Your task to perform on an android device: change notification settings in the gmail app Image 0: 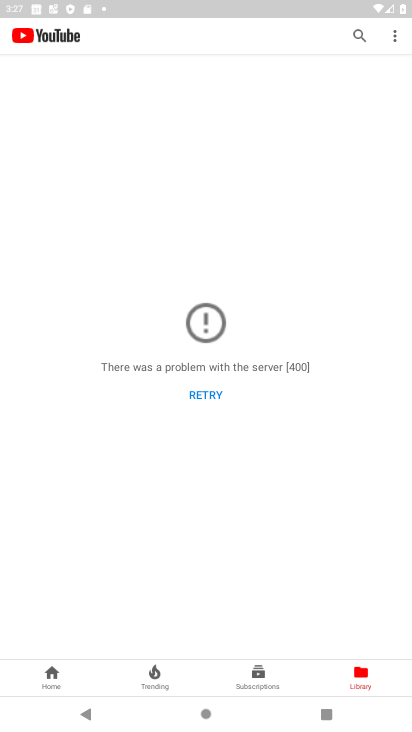
Step 0: press home button
Your task to perform on an android device: change notification settings in the gmail app Image 1: 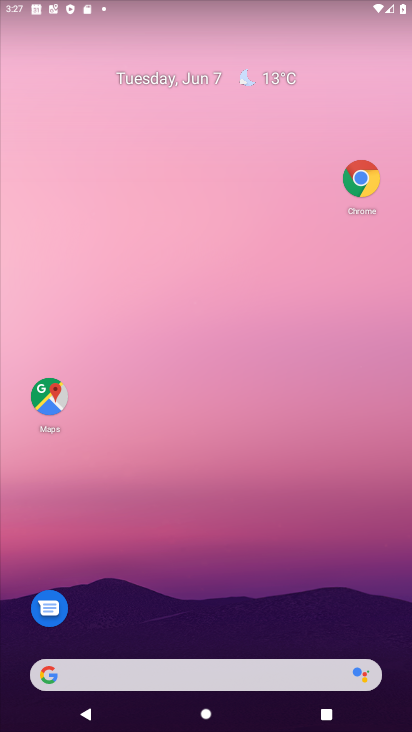
Step 1: drag from (148, 615) to (203, 69)
Your task to perform on an android device: change notification settings in the gmail app Image 2: 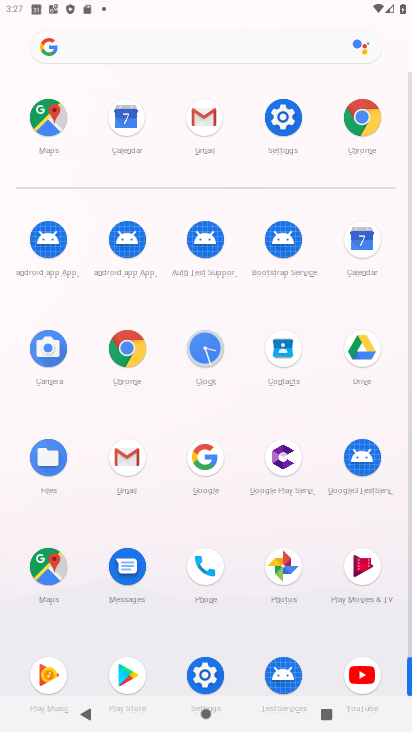
Step 2: click (114, 467)
Your task to perform on an android device: change notification settings in the gmail app Image 3: 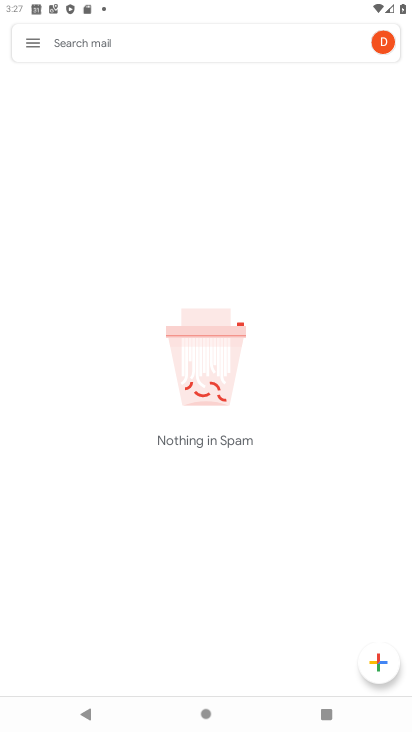
Step 3: click (35, 32)
Your task to perform on an android device: change notification settings in the gmail app Image 4: 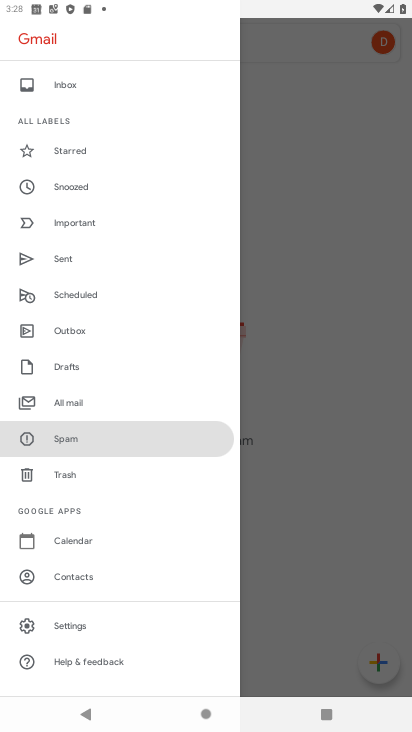
Step 4: drag from (81, 520) to (188, 15)
Your task to perform on an android device: change notification settings in the gmail app Image 5: 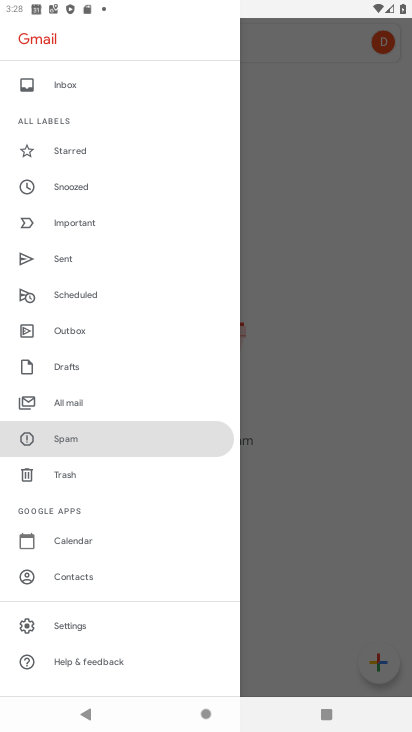
Step 5: click (113, 626)
Your task to perform on an android device: change notification settings in the gmail app Image 6: 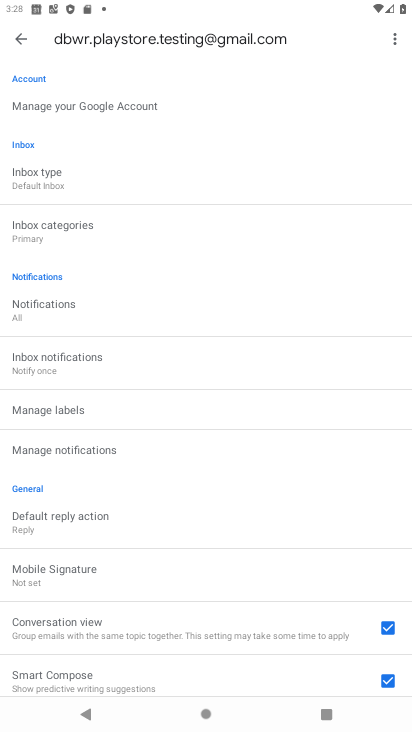
Step 6: click (100, 464)
Your task to perform on an android device: change notification settings in the gmail app Image 7: 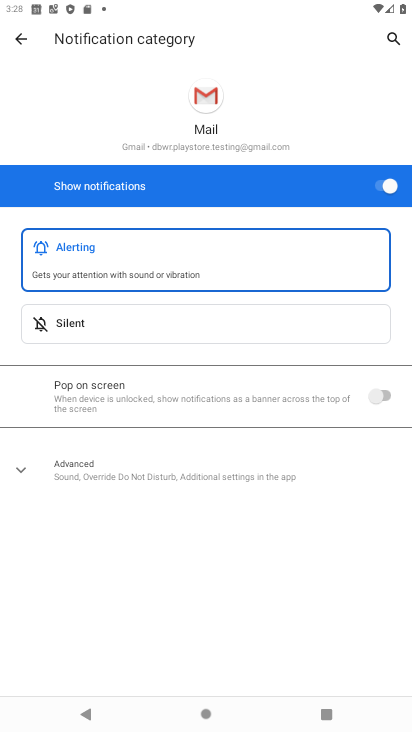
Step 7: click (188, 332)
Your task to perform on an android device: change notification settings in the gmail app Image 8: 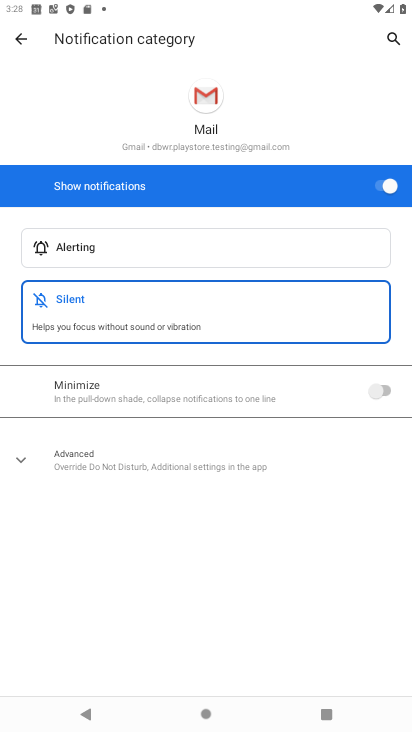
Step 8: click (385, 389)
Your task to perform on an android device: change notification settings in the gmail app Image 9: 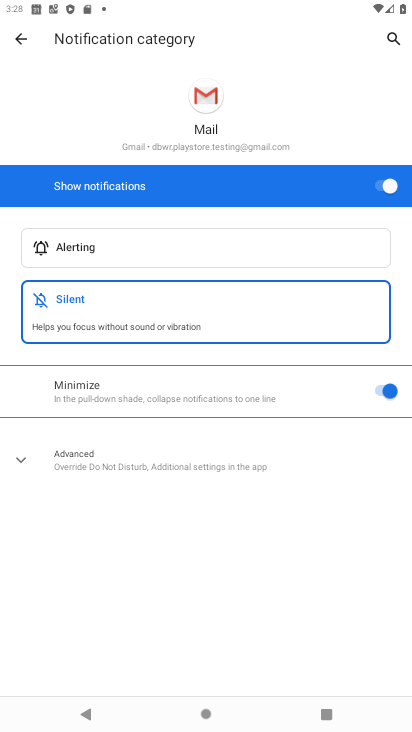
Step 9: click (341, 434)
Your task to perform on an android device: change notification settings in the gmail app Image 10: 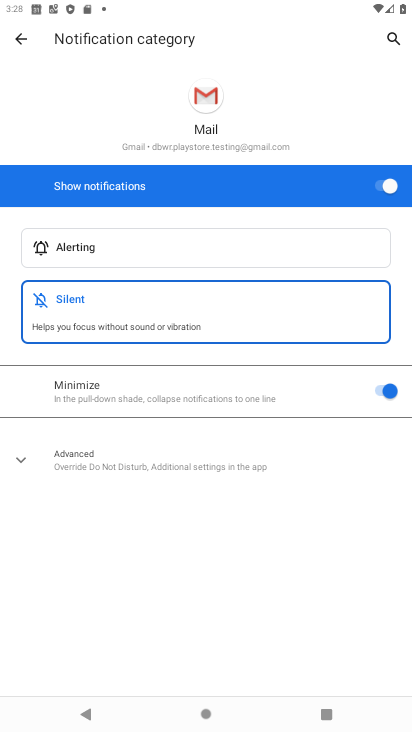
Step 10: click (191, 476)
Your task to perform on an android device: change notification settings in the gmail app Image 11: 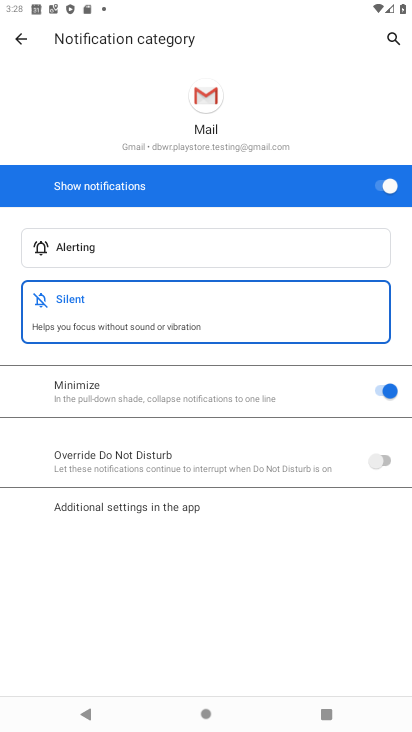
Step 11: click (386, 455)
Your task to perform on an android device: change notification settings in the gmail app Image 12: 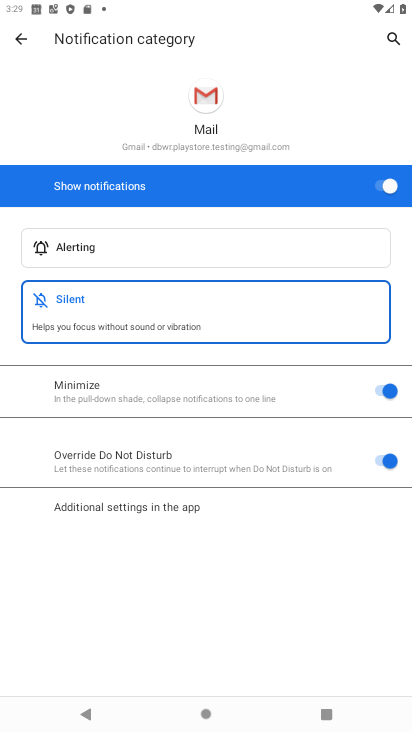
Step 12: task complete